Your task to perform on an android device: Open Google Maps Image 0: 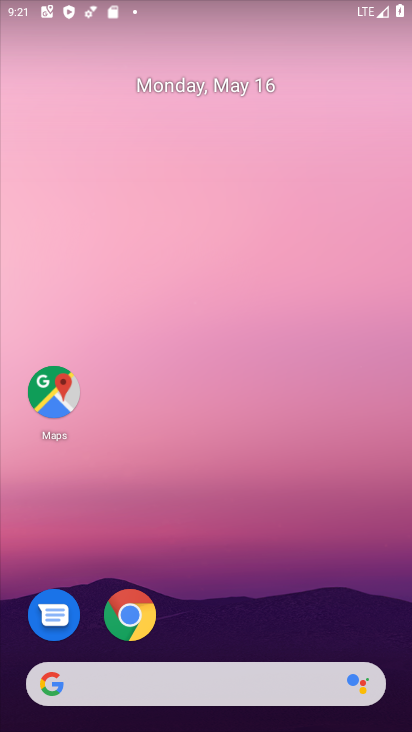
Step 0: drag from (339, 622) to (339, 264)
Your task to perform on an android device: Open Google Maps Image 1: 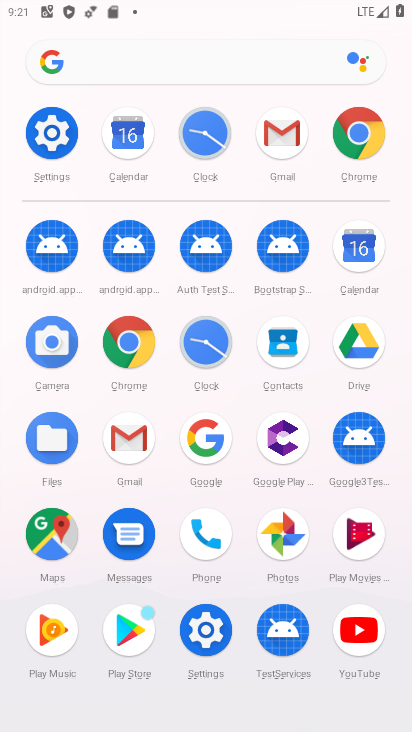
Step 1: click (67, 526)
Your task to perform on an android device: Open Google Maps Image 2: 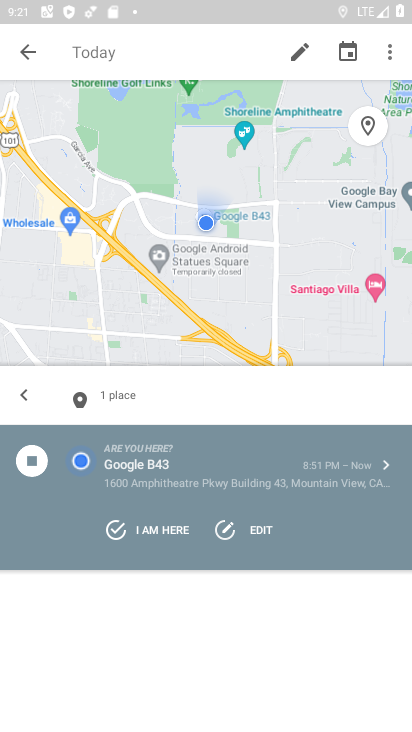
Step 2: task complete